Your task to perform on an android device: add a contact Image 0: 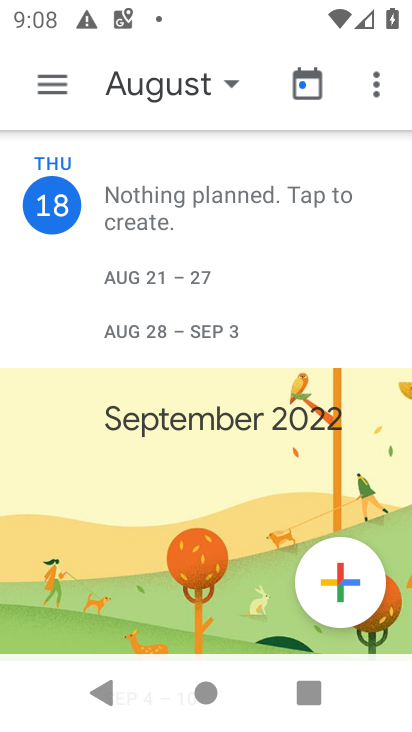
Step 0: press home button
Your task to perform on an android device: add a contact Image 1: 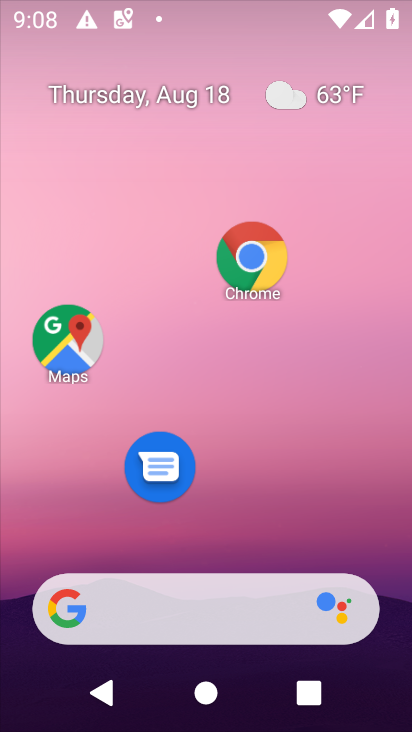
Step 1: task complete